Your task to perform on an android device: see creations saved in the google photos Image 0: 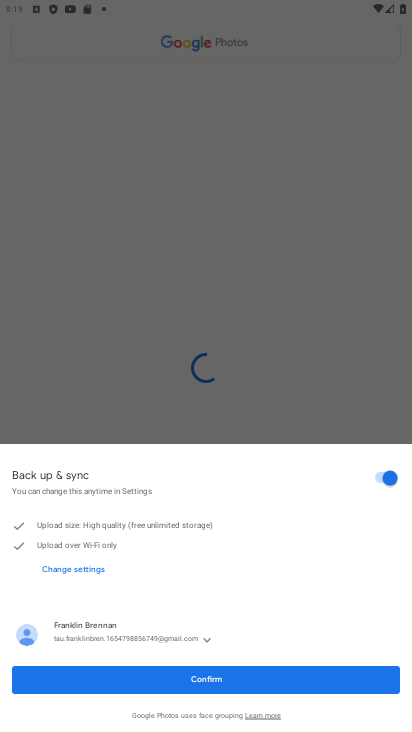
Step 0: press home button
Your task to perform on an android device: see creations saved in the google photos Image 1: 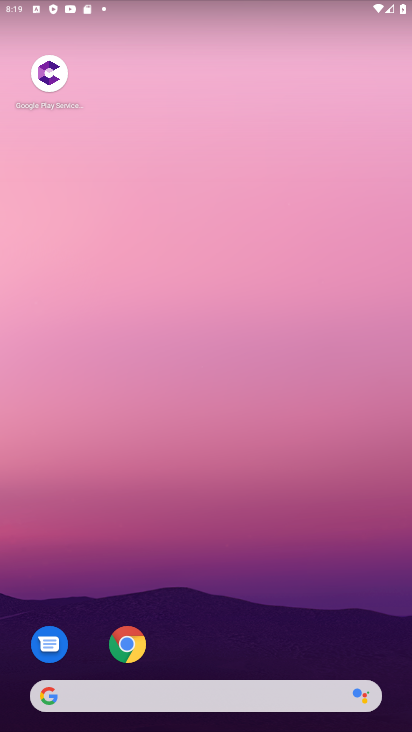
Step 1: drag from (389, 645) to (348, 98)
Your task to perform on an android device: see creations saved in the google photos Image 2: 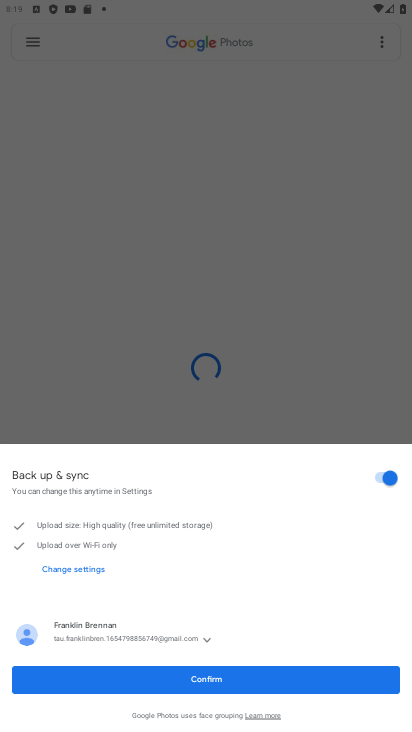
Step 2: click (200, 677)
Your task to perform on an android device: see creations saved in the google photos Image 3: 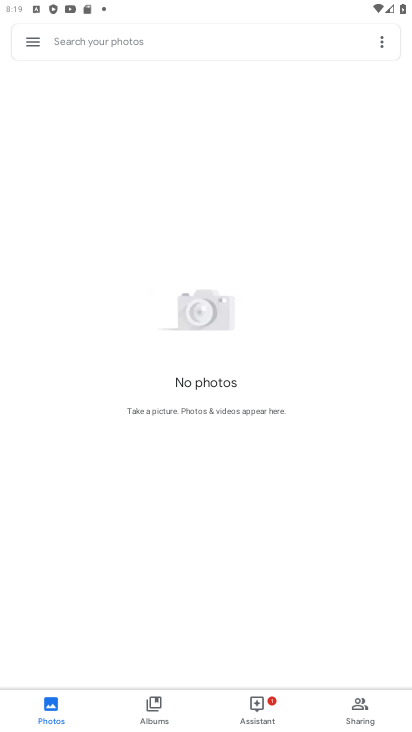
Step 3: task complete